Your task to perform on an android device: How much does a 2 bedroom apartment rent for in Washington DC? Image 0: 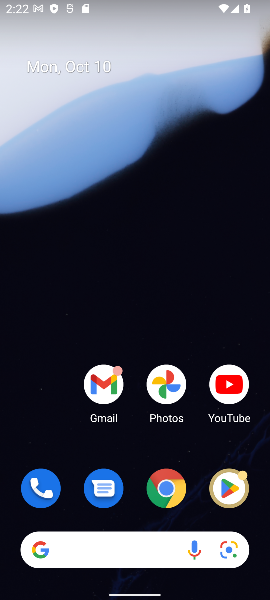
Step 0: click (113, 559)
Your task to perform on an android device: How much does a 2 bedroom apartment rent for in Washington DC? Image 1: 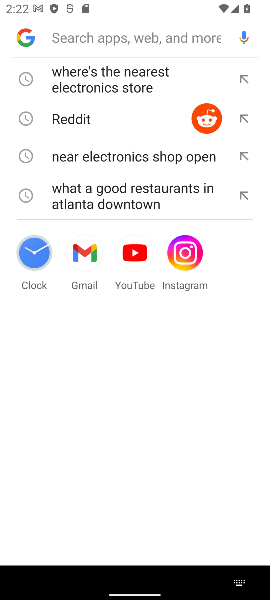
Step 1: click (92, 39)
Your task to perform on an android device: How much does a 2 bedroom apartment rent for in Washington DC? Image 2: 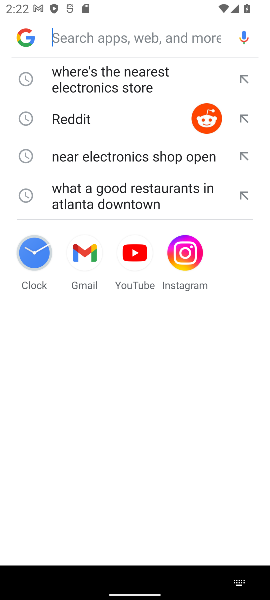
Step 2: type "How much does a 2 bedroom apartment rent for in Washington DC?"
Your task to perform on an android device: How much does a 2 bedroom apartment rent for in Washington DC? Image 3: 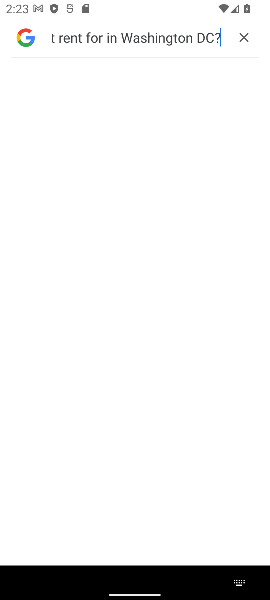
Step 3: task complete